Your task to perform on an android device: stop showing notifications on the lock screen Image 0: 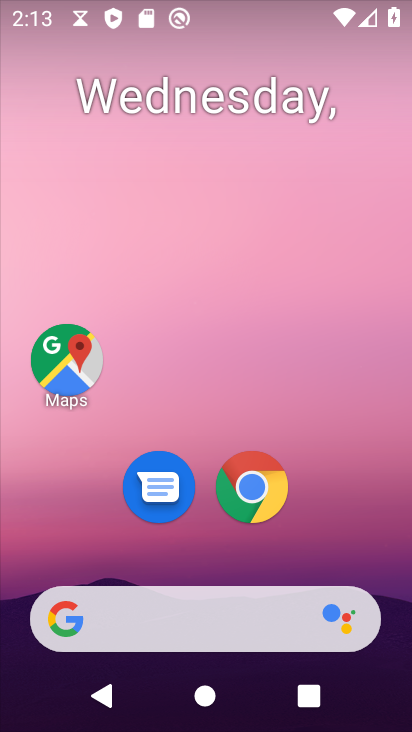
Step 0: click (256, 260)
Your task to perform on an android device: stop showing notifications on the lock screen Image 1: 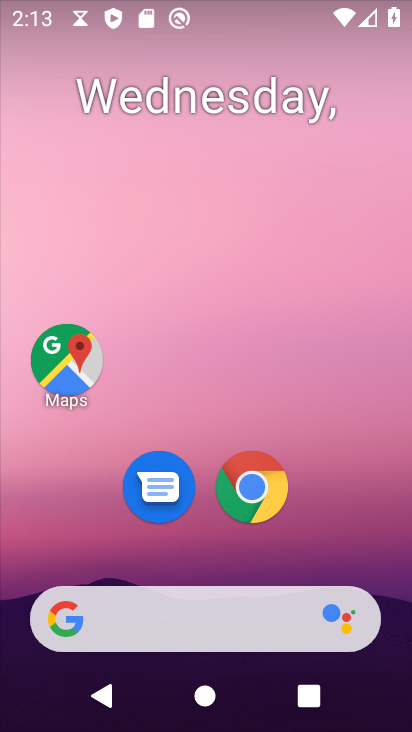
Step 1: drag from (241, 656) to (250, 153)
Your task to perform on an android device: stop showing notifications on the lock screen Image 2: 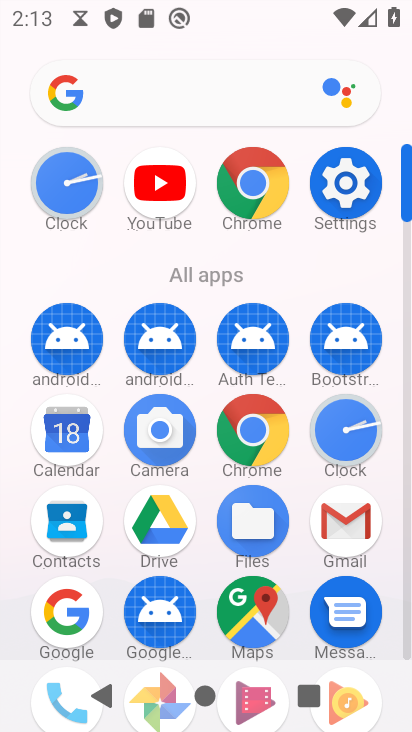
Step 2: click (351, 175)
Your task to perform on an android device: stop showing notifications on the lock screen Image 3: 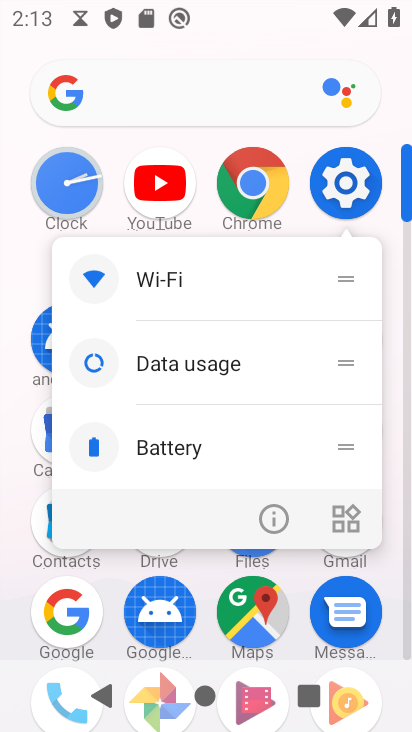
Step 3: click (353, 185)
Your task to perform on an android device: stop showing notifications on the lock screen Image 4: 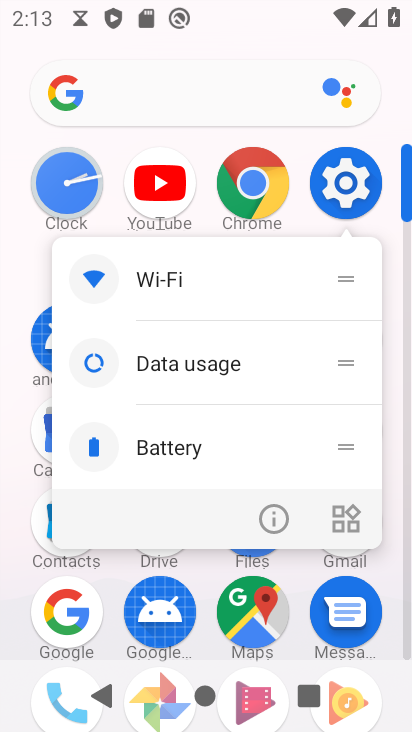
Step 4: click (334, 190)
Your task to perform on an android device: stop showing notifications on the lock screen Image 5: 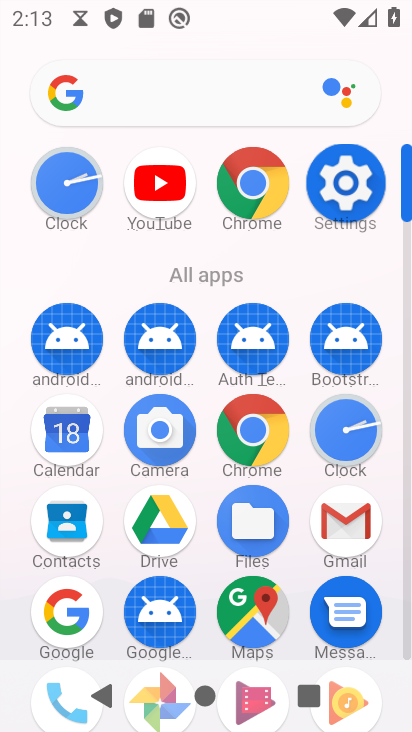
Step 5: click (335, 191)
Your task to perform on an android device: stop showing notifications on the lock screen Image 6: 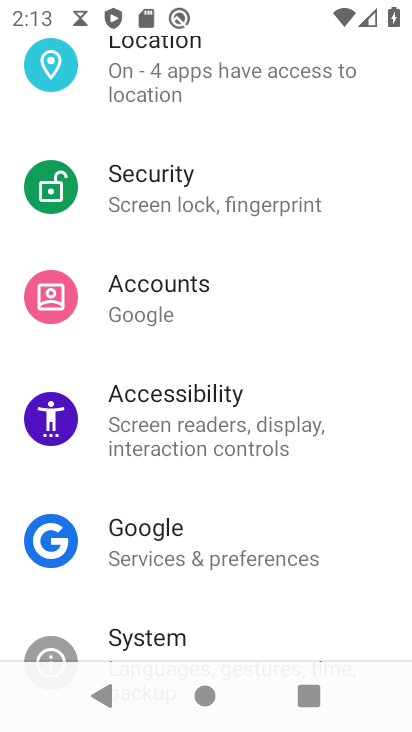
Step 6: drag from (162, 441) to (136, 141)
Your task to perform on an android device: stop showing notifications on the lock screen Image 7: 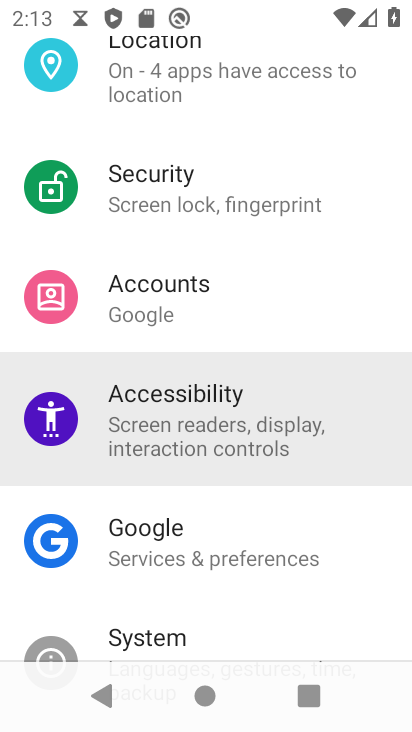
Step 7: drag from (193, 261) to (179, 119)
Your task to perform on an android device: stop showing notifications on the lock screen Image 8: 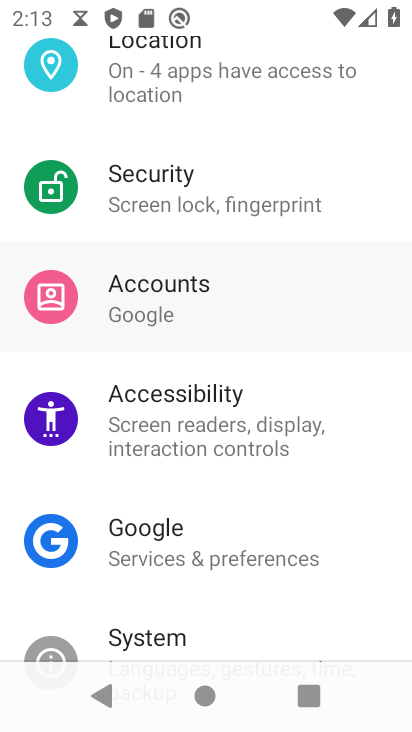
Step 8: drag from (209, 395) to (224, 161)
Your task to perform on an android device: stop showing notifications on the lock screen Image 9: 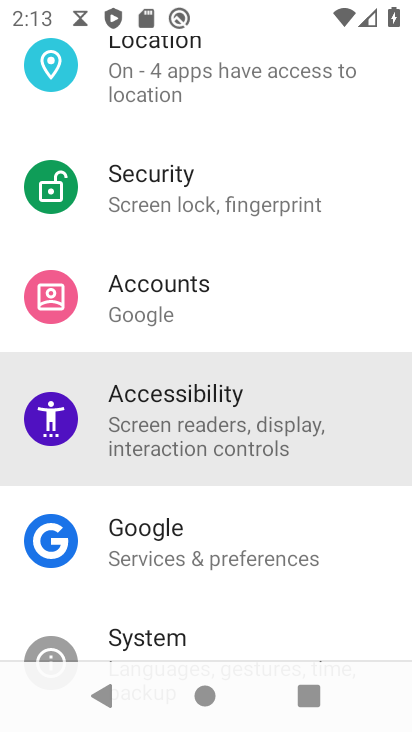
Step 9: drag from (204, 370) to (208, 482)
Your task to perform on an android device: stop showing notifications on the lock screen Image 10: 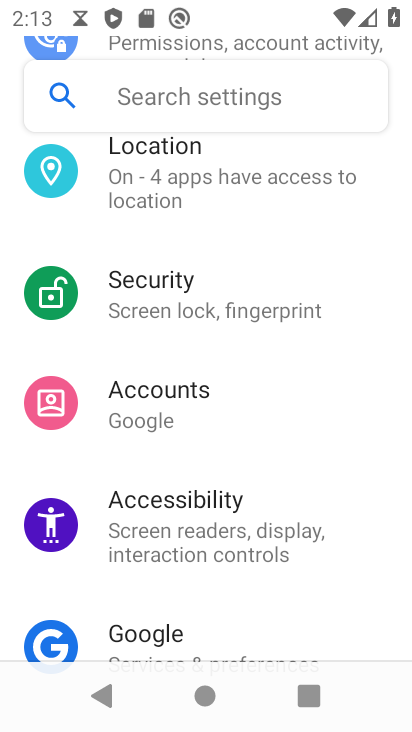
Step 10: drag from (170, 271) to (219, 565)
Your task to perform on an android device: stop showing notifications on the lock screen Image 11: 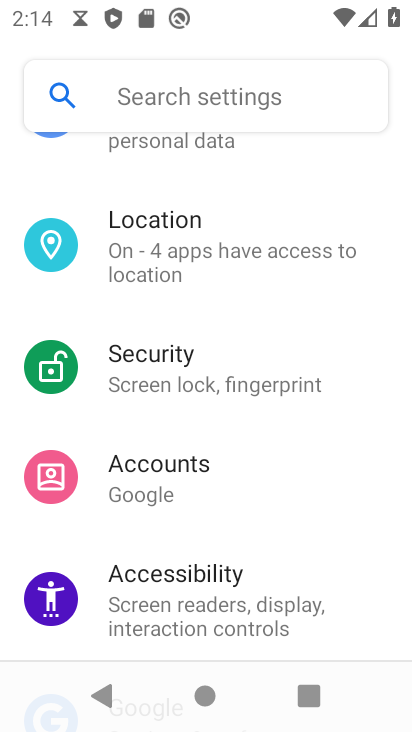
Step 11: drag from (122, 245) to (257, 555)
Your task to perform on an android device: stop showing notifications on the lock screen Image 12: 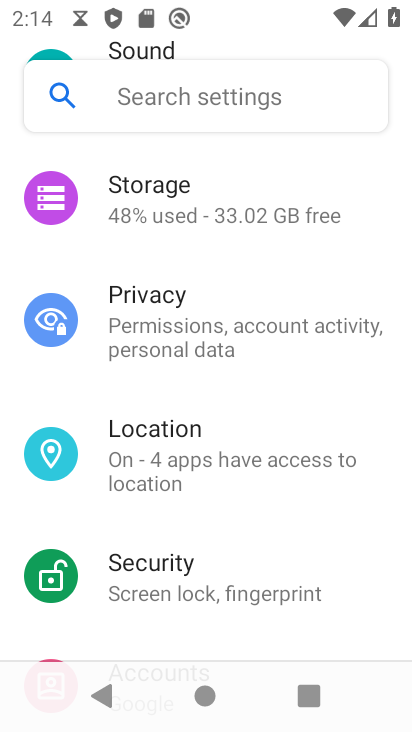
Step 12: drag from (193, 292) to (277, 553)
Your task to perform on an android device: stop showing notifications on the lock screen Image 13: 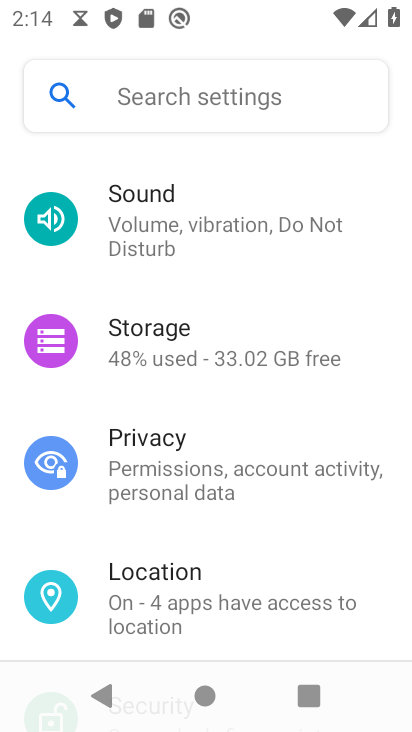
Step 13: drag from (163, 271) to (246, 440)
Your task to perform on an android device: stop showing notifications on the lock screen Image 14: 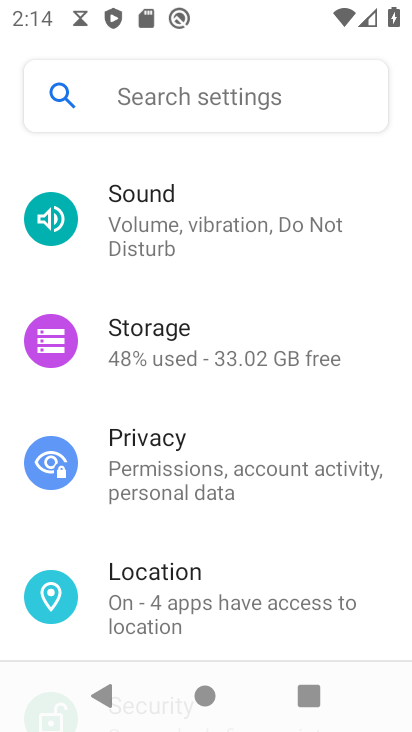
Step 14: click (282, 540)
Your task to perform on an android device: stop showing notifications on the lock screen Image 15: 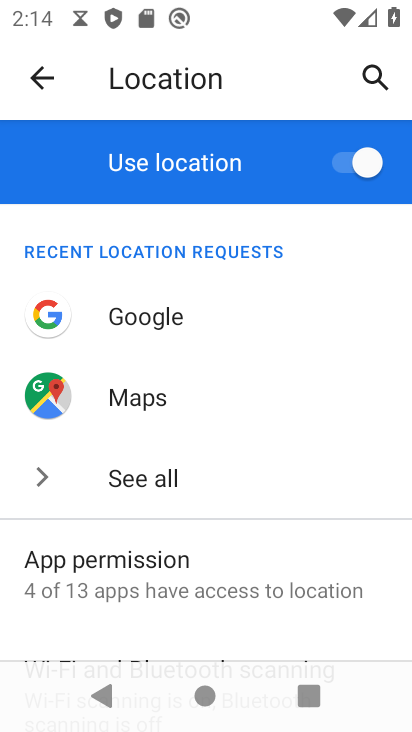
Step 15: click (200, 501)
Your task to perform on an android device: stop showing notifications on the lock screen Image 16: 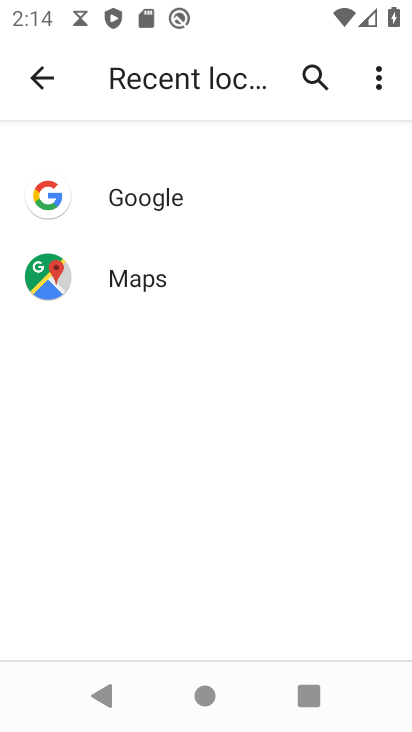
Step 16: click (112, 588)
Your task to perform on an android device: stop showing notifications on the lock screen Image 17: 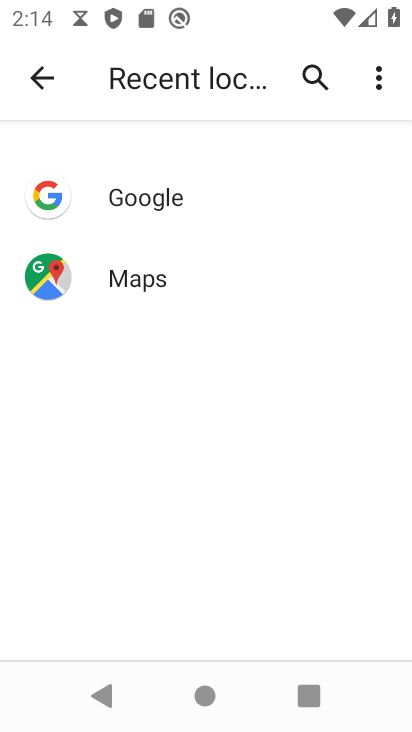
Step 17: click (36, 76)
Your task to perform on an android device: stop showing notifications on the lock screen Image 18: 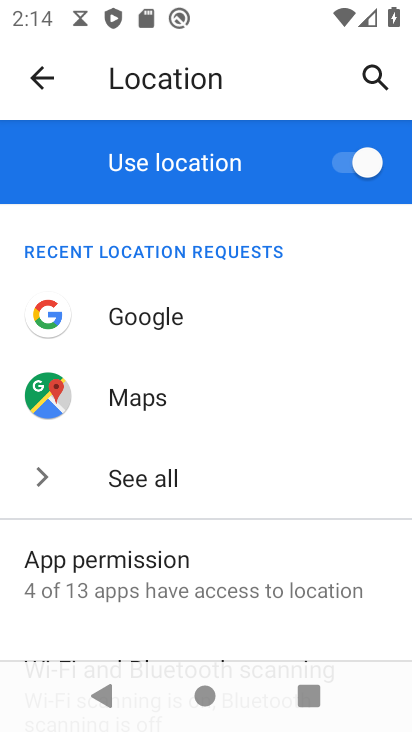
Step 18: click (38, 69)
Your task to perform on an android device: stop showing notifications on the lock screen Image 19: 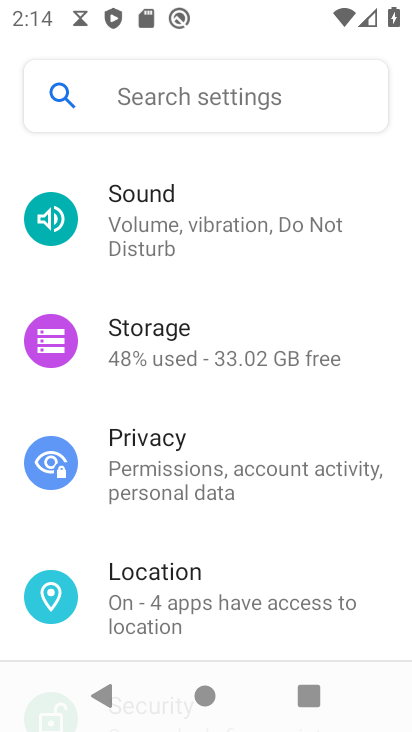
Step 19: click (25, 82)
Your task to perform on an android device: stop showing notifications on the lock screen Image 20: 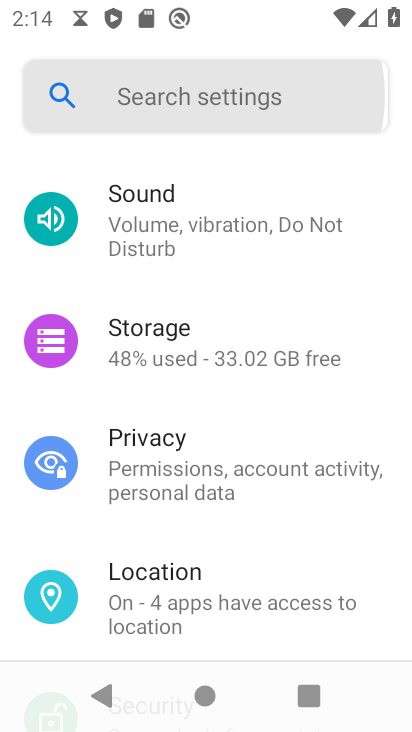
Step 20: click (36, 77)
Your task to perform on an android device: stop showing notifications on the lock screen Image 21: 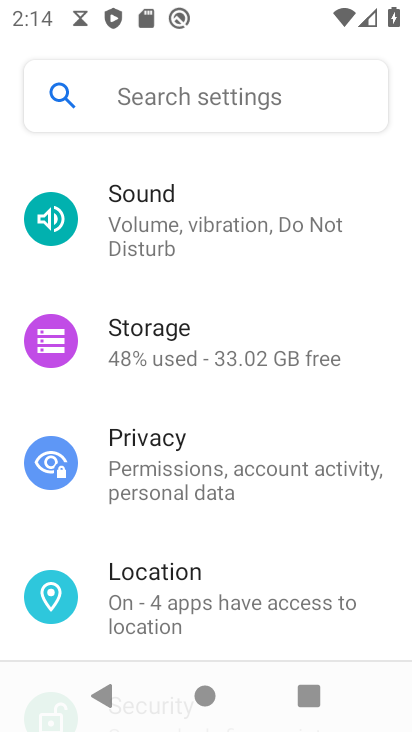
Step 21: click (36, 70)
Your task to perform on an android device: stop showing notifications on the lock screen Image 22: 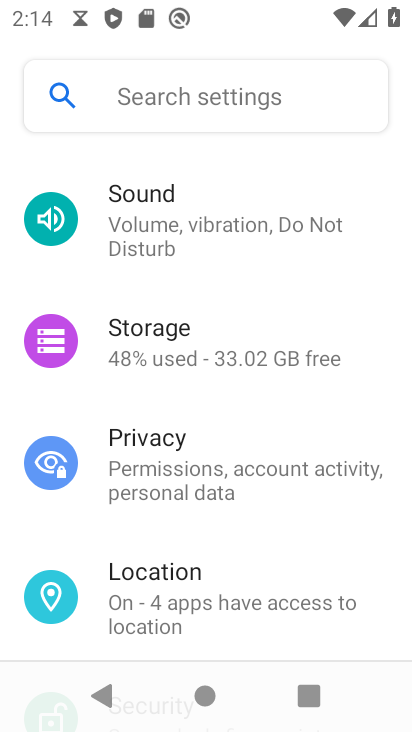
Step 22: click (36, 74)
Your task to perform on an android device: stop showing notifications on the lock screen Image 23: 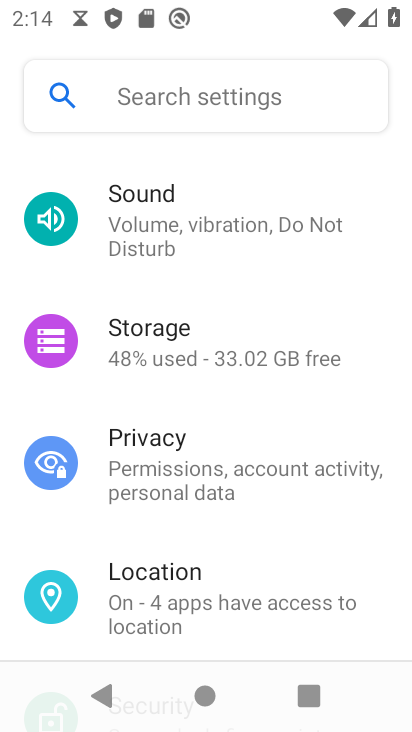
Step 23: click (180, 545)
Your task to perform on an android device: stop showing notifications on the lock screen Image 24: 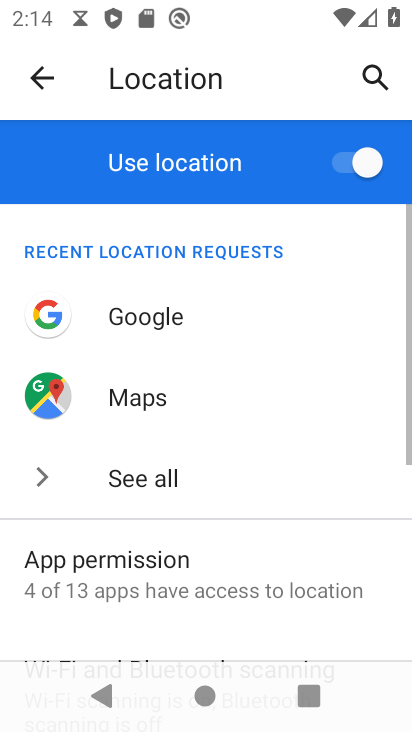
Step 24: click (33, 76)
Your task to perform on an android device: stop showing notifications on the lock screen Image 25: 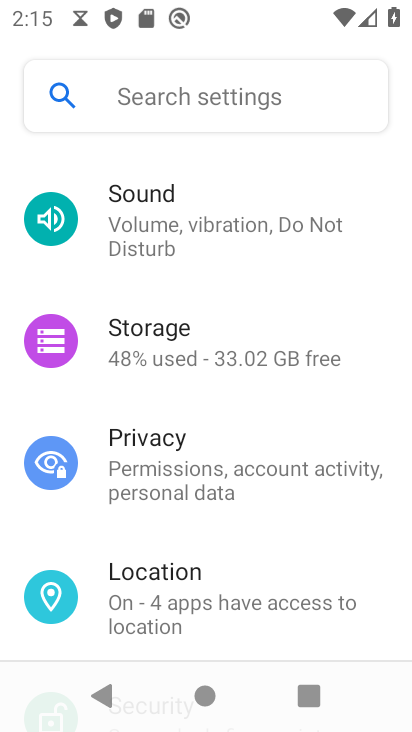
Step 25: drag from (199, 208) to (163, 582)
Your task to perform on an android device: stop showing notifications on the lock screen Image 26: 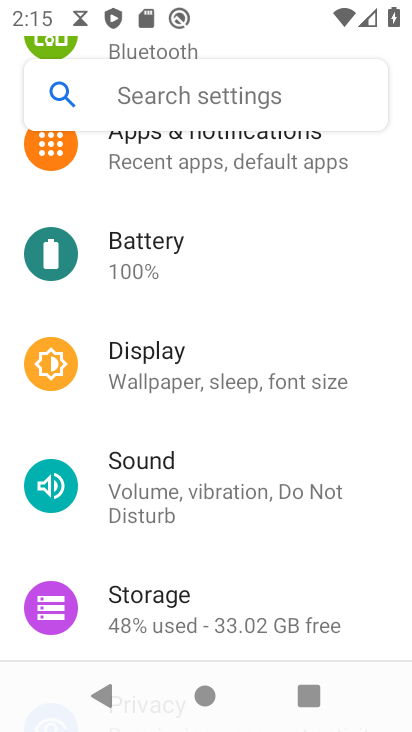
Step 26: click (182, 155)
Your task to perform on an android device: stop showing notifications on the lock screen Image 27: 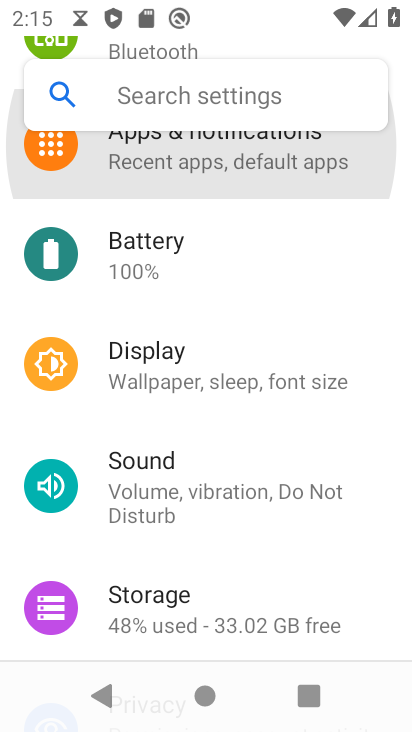
Step 27: click (182, 155)
Your task to perform on an android device: stop showing notifications on the lock screen Image 28: 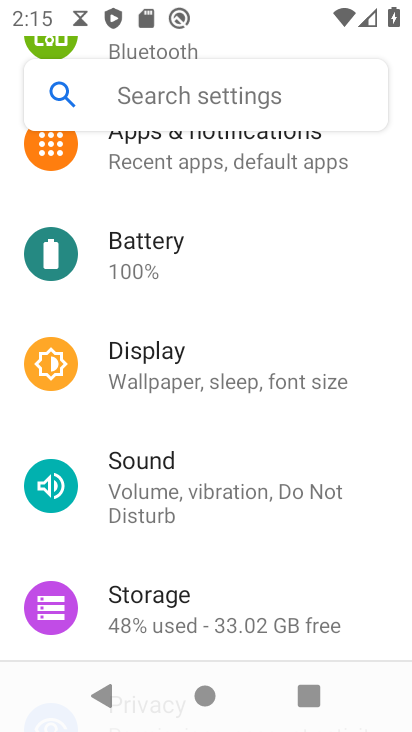
Step 28: click (177, 164)
Your task to perform on an android device: stop showing notifications on the lock screen Image 29: 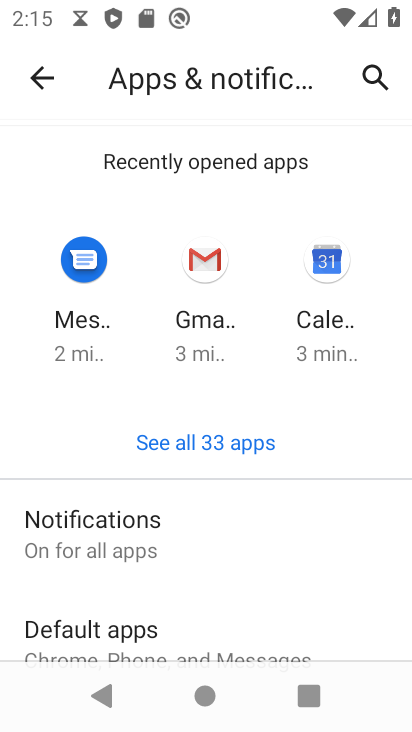
Step 29: click (56, 523)
Your task to perform on an android device: stop showing notifications on the lock screen Image 30: 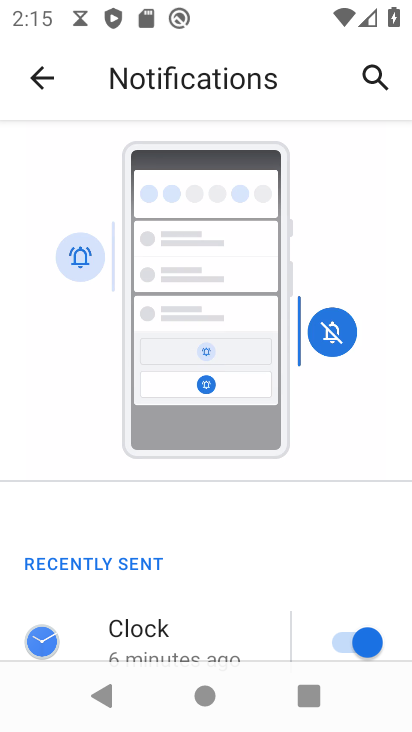
Step 30: drag from (192, 539) to (219, 206)
Your task to perform on an android device: stop showing notifications on the lock screen Image 31: 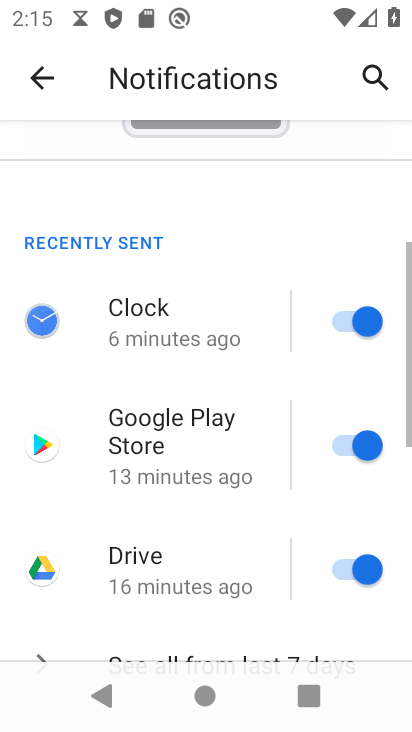
Step 31: drag from (233, 510) to (220, 148)
Your task to perform on an android device: stop showing notifications on the lock screen Image 32: 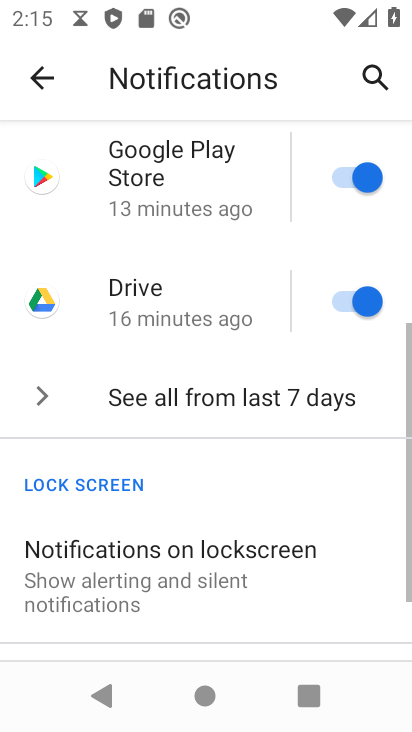
Step 32: drag from (229, 496) to (212, 158)
Your task to perform on an android device: stop showing notifications on the lock screen Image 33: 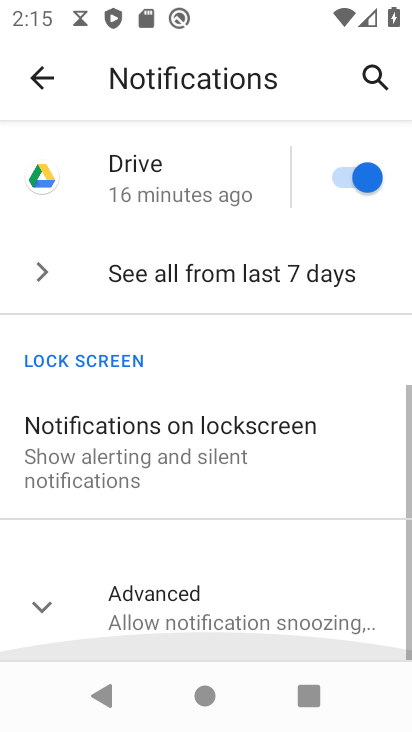
Step 33: drag from (220, 492) to (212, 163)
Your task to perform on an android device: stop showing notifications on the lock screen Image 34: 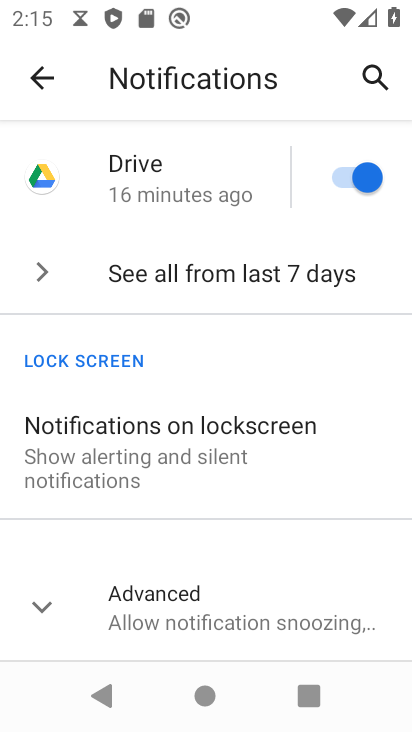
Step 34: click (133, 453)
Your task to perform on an android device: stop showing notifications on the lock screen Image 35: 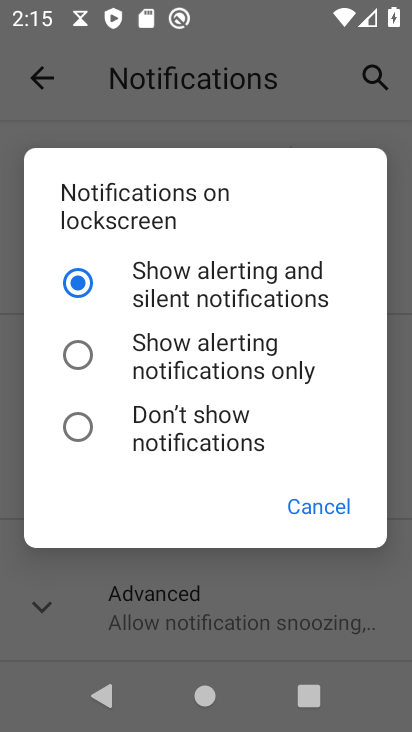
Step 35: click (336, 491)
Your task to perform on an android device: stop showing notifications on the lock screen Image 36: 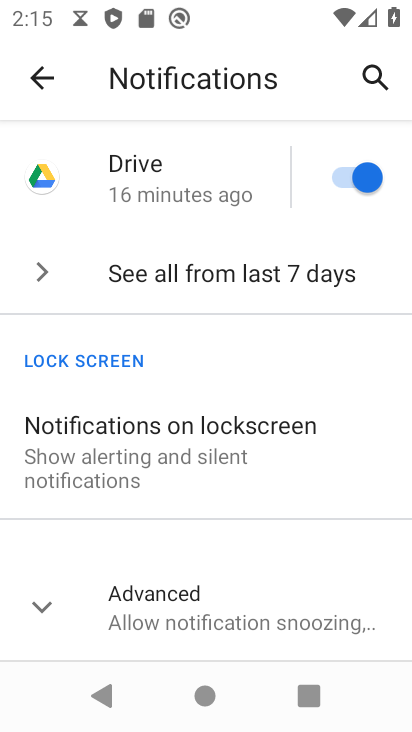
Step 36: task complete